Your task to perform on an android device: What's on my calendar today? Image 0: 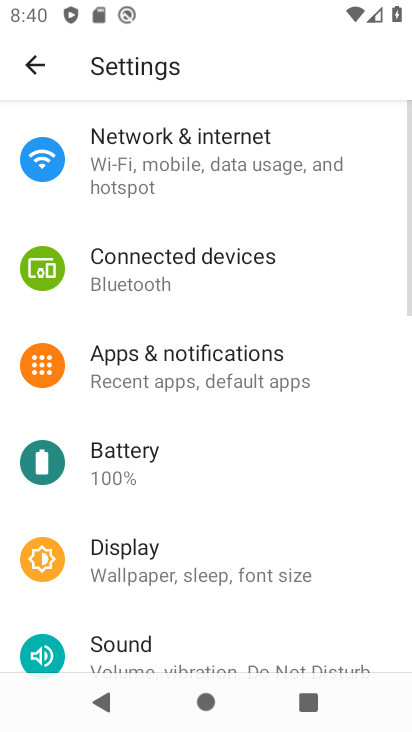
Step 0: press back button
Your task to perform on an android device: What's on my calendar today? Image 1: 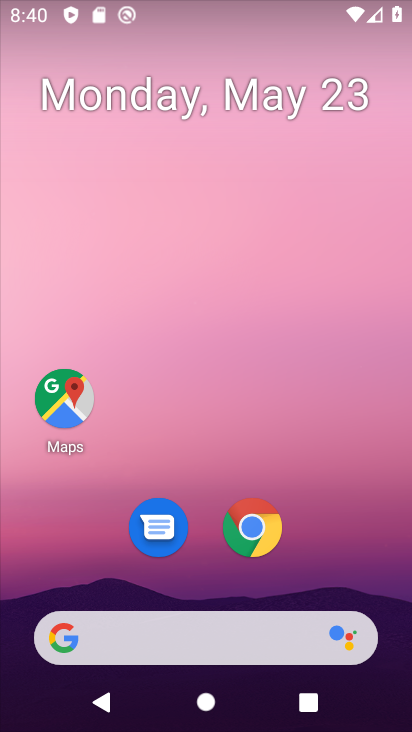
Step 1: drag from (312, 373) to (235, 0)
Your task to perform on an android device: What's on my calendar today? Image 2: 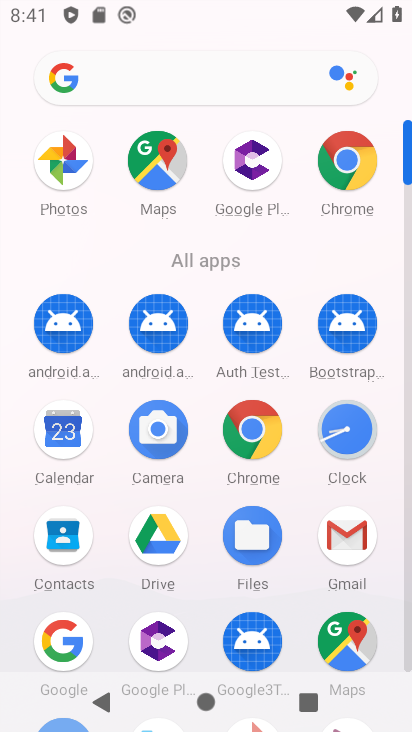
Step 2: drag from (18, 552) to (17, 149)
Your task to perform on an android device: What's on my calendar today? Image 3: 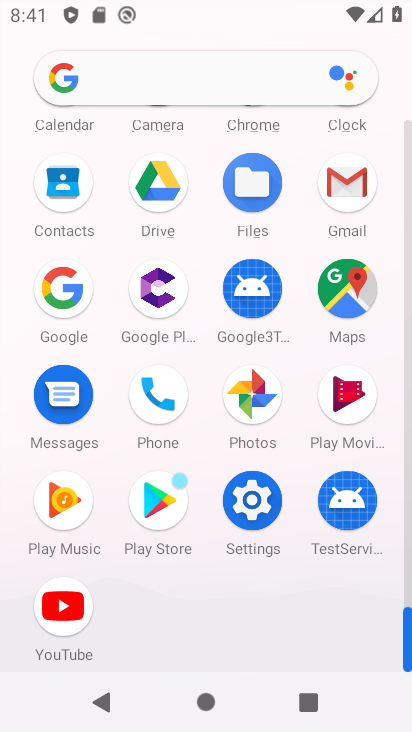
Step 3: drag from (15, 174) to (19, 486)
Your task to perform on an android device: What's on my calendar today? Image 4: 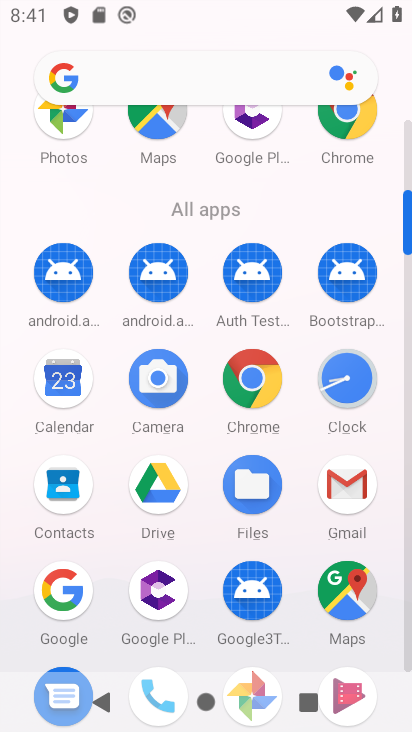
Step 4: click (59, 372)
Your task to perform on an android device: What's on my calendar today? Image 5: 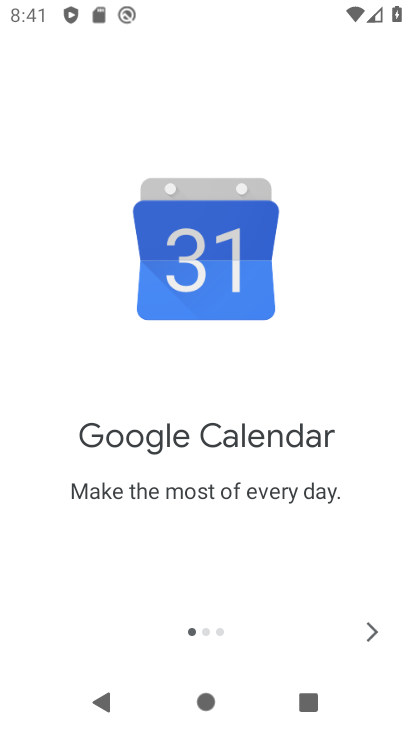
Step 5: click (368, 628)
Your task to perform on an android device: What's on my calendar today? Image 6: 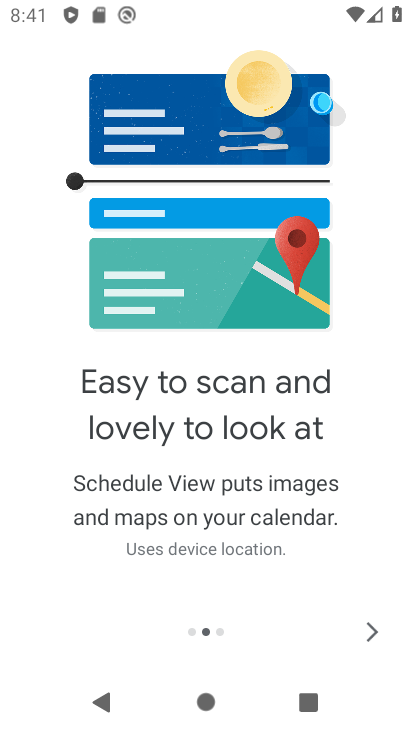
Step 6: click (368, 628)
Your task to perform on an android device: What's on my calendar today? Image 7: 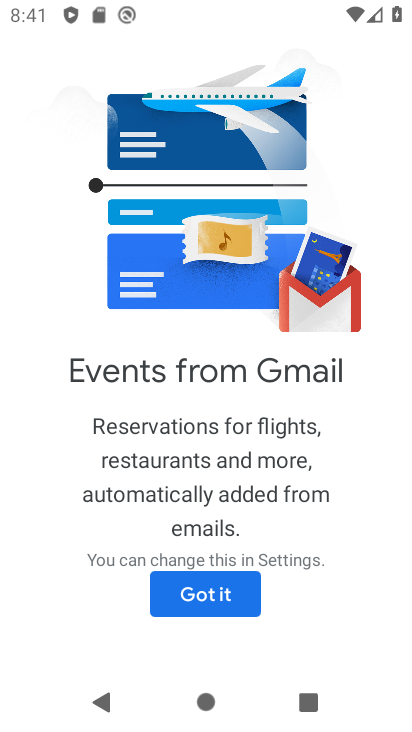
Step 7: click (207, 587)
Your task to perform on an android device: What's on my calendar today? Image 8: 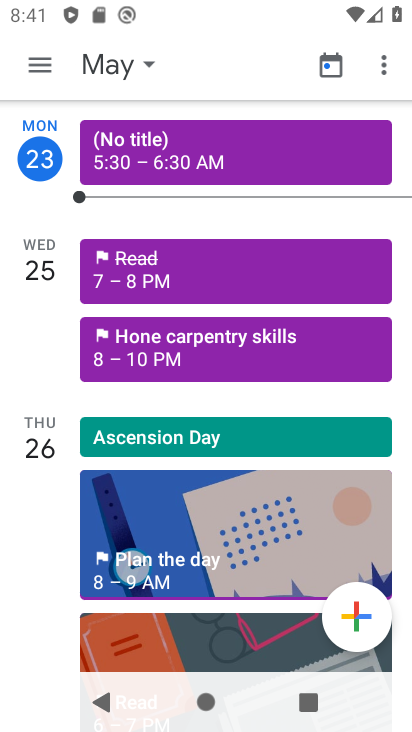
Step 8: click (27, 60)
Your task to perform on an android device: What's on my calendar today? Image 9: 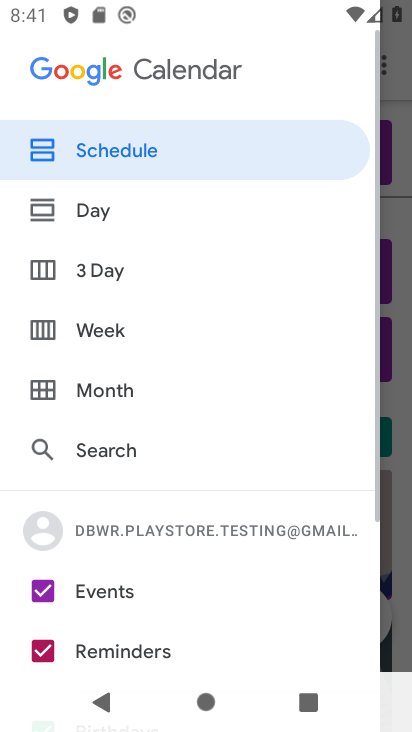
Step 9: click (111, 204)
Your task to perform on an android device: What's on my calendar today? Image 10: 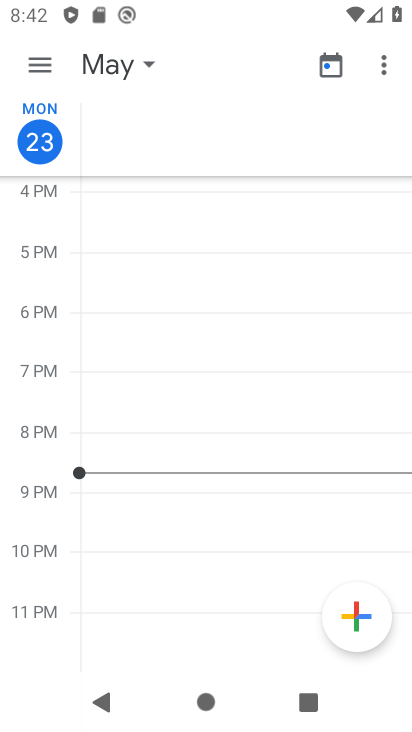
Step 10: task complete